Your task to perform on an android device: Turn off the flashlight Image 0: 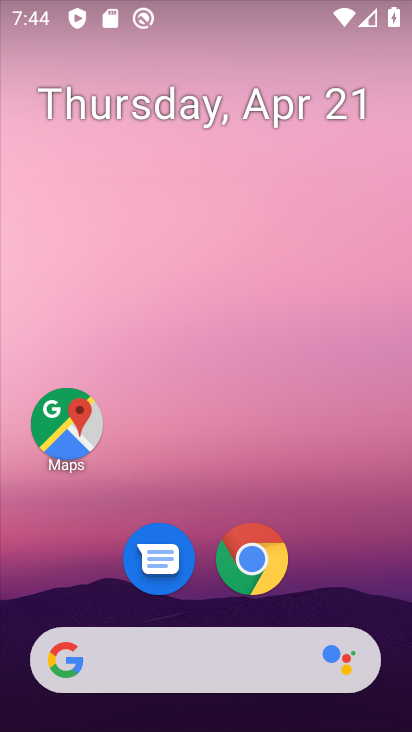
Step 0: drag from (269, 661) to (254, 305)
Your task to perform on an android device: Turn off the flashlight Image 1: 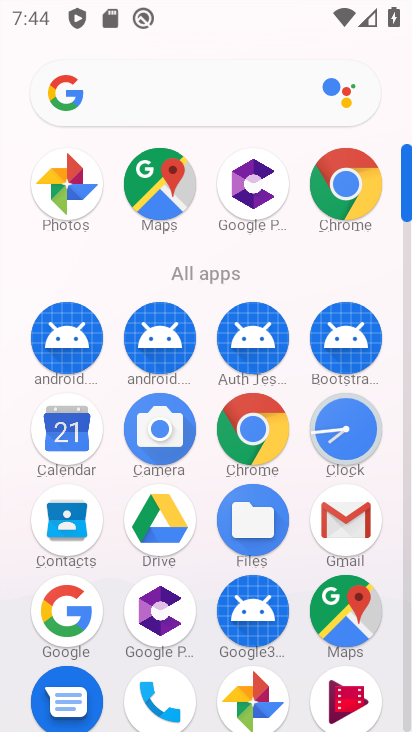
Step 1: task complete